Your task to perform on an android device: Open Chrome and go to settings Image 0: 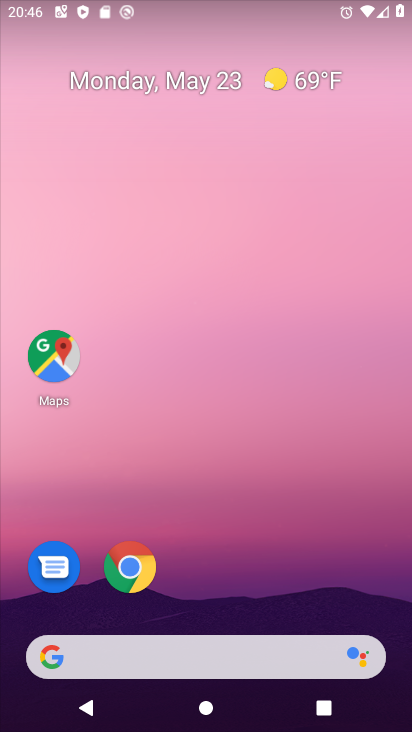
Step 0: click (137, 537)
Your task to perform on an android device: Open Chrome and go to settings Image 1: 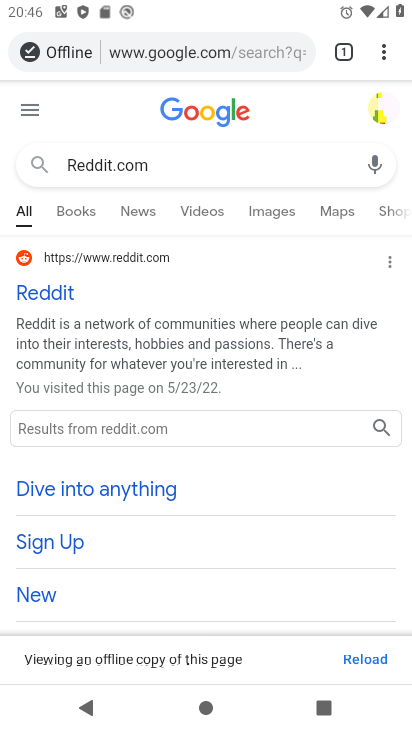
Step 1: click (384, 61)
Your task to perform on an android device: Open Chrome and go to settings Image 2: 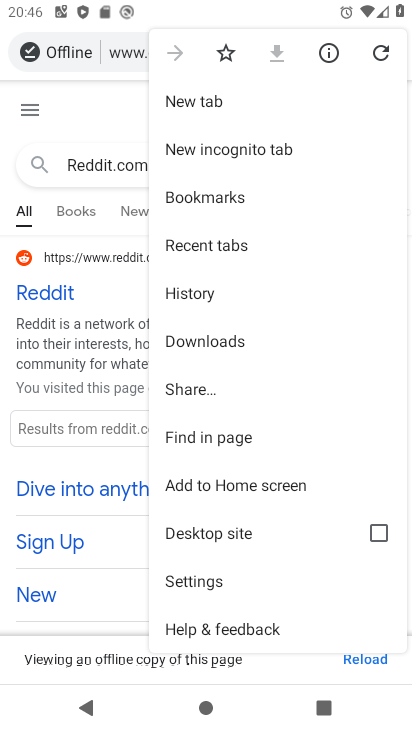
Step 2: click (213, 580)
Your task to perform on an android device: Open Chrome and go to settings Image 3: 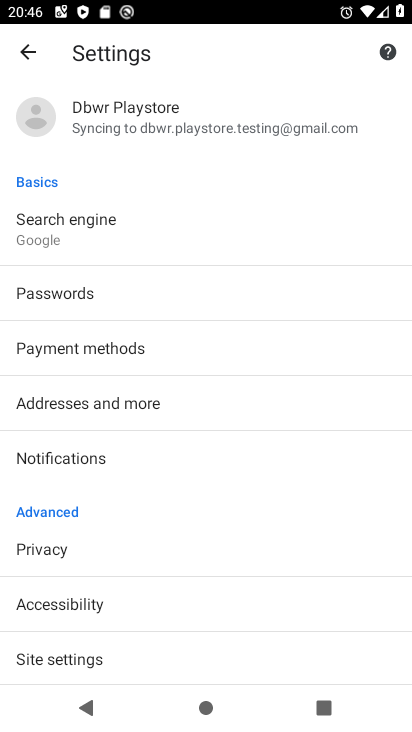
Step 3: task complete